Your task to perform on an android device: Open Google Maps Image 0: 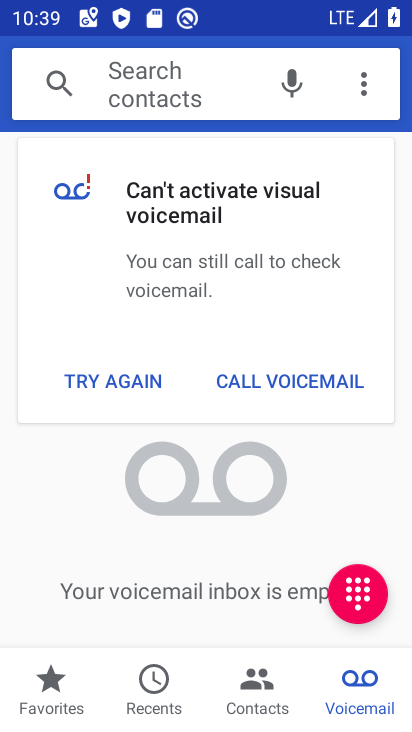
Step 0: press home button
Your task to perform on an android device: Open Google Maps Image 1: 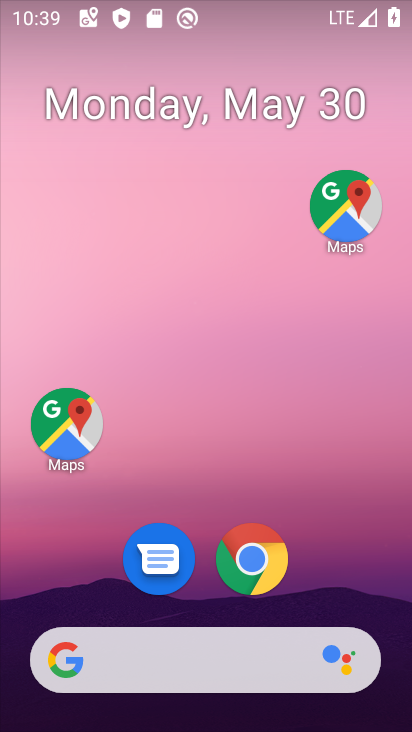
Step 1: click (72, 432)
Your task to perform on an android device: Open Google Maps Image 2: 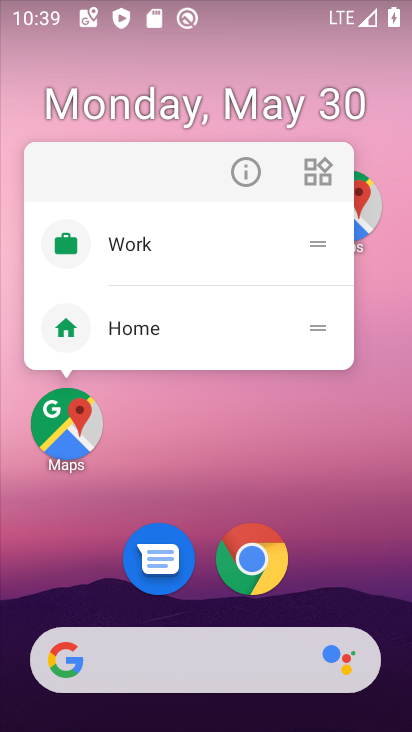
Step 2: click (62, 434)
Your task to perform on an android device: Open Google Maps Image 3: 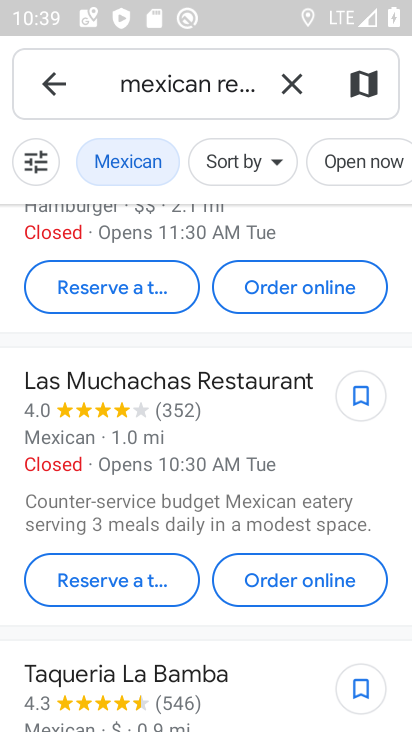
Step 3: task complete